Your task to perform on an android device: Open Chrome and go to settings Image 0: 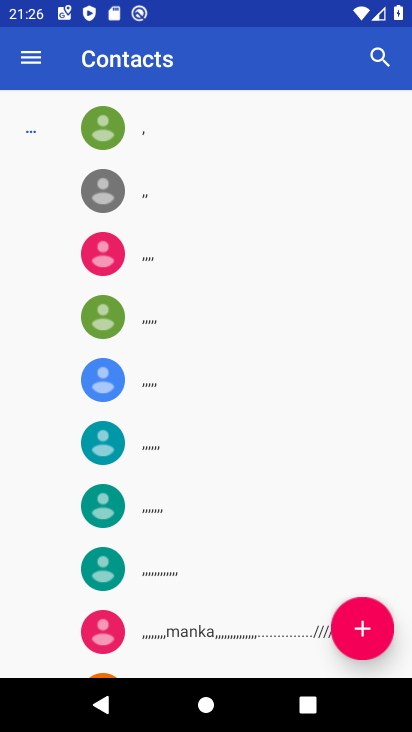
Step 0: press home button
Your task to perform on an android device: Open Chrome and go to settings Image 1: 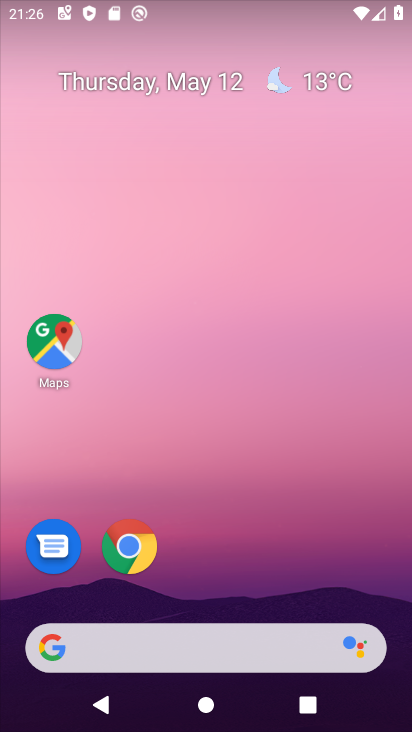
Step 1: click (142, 549)
Your task to perform on an android device: Open Chrome and go to settings Image 2: 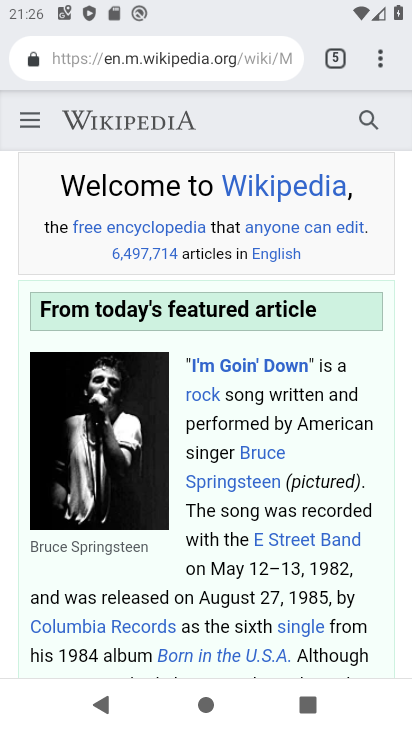
Step 2: task complete